Your task to perform on an android device: Go to sound settings Image 0: 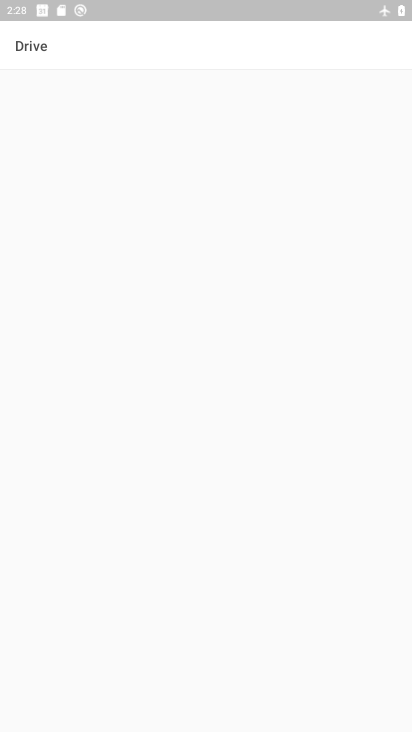
Step 0: press home button
Your task to perform on an android device: Go to sound settings Image 1: 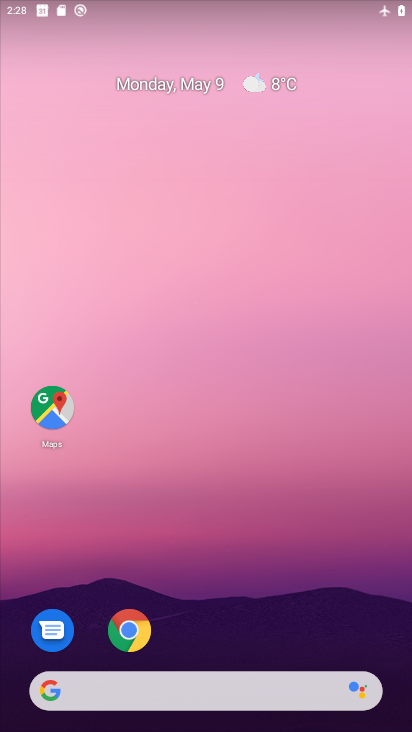
Step 1: drag from (283, 629) to (397, 120)
Your task to perform on an android device: Go to sound settings Image 2: 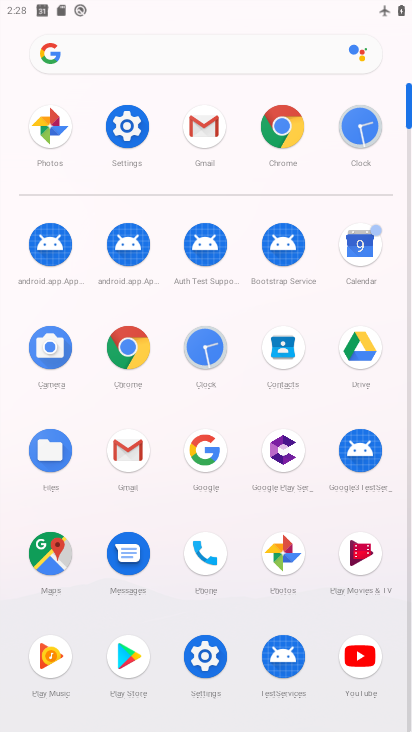
Step 2: click (214, 663)
Your task to perform on an android device: Go to sound settings Image 3: 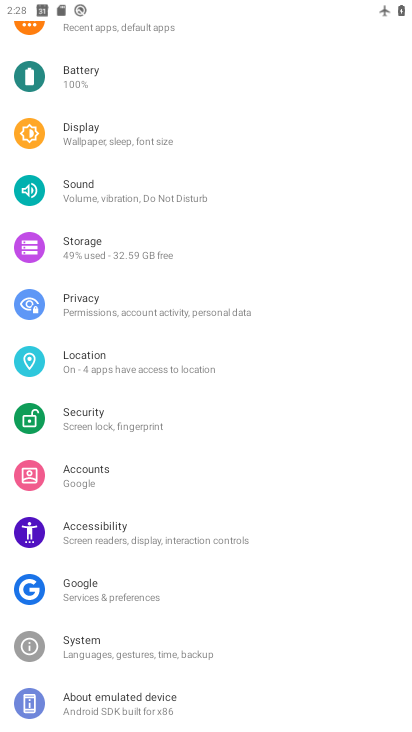
Step 3: click (147, 194)
Your task to perform on an android device: Go to sound settings Image 4: 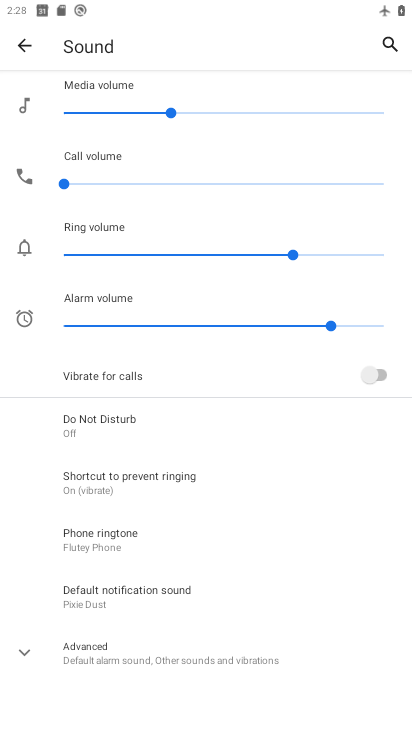
Step 4: task complete